Your task to perform on an android device: find snoozed emails in the gmail app Image 0: 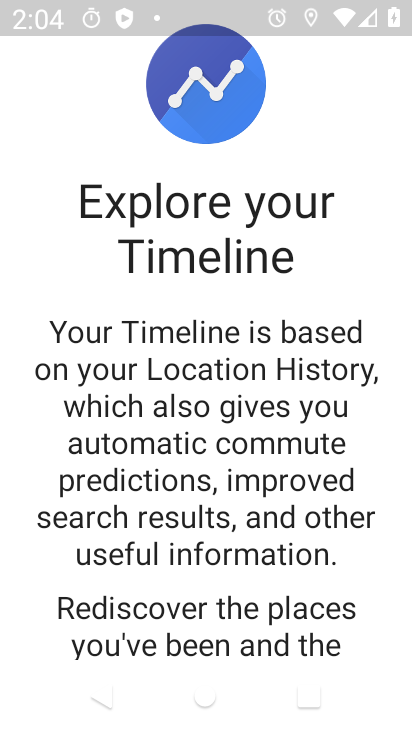
Step 0: press home button
Your task to perform on an android device: find snoozed emails in the gmail app Image 1: 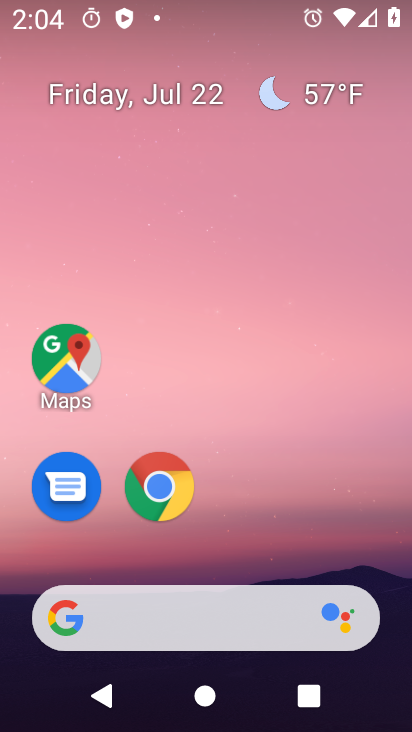
Step 1: drag from (376, 498) to (360, 121)
Your task to perform on an android device: find snoozed emails in the gmail app Image 2: 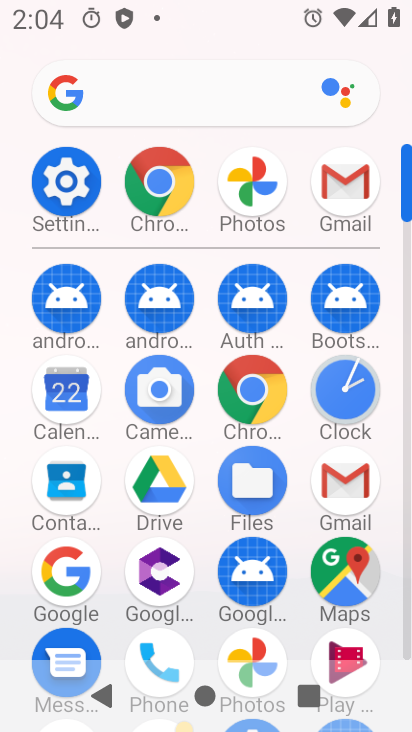
Step 2: click (341, 487)
Your task to perform on an android device: find snoozed emails in the gmail app Image 3: 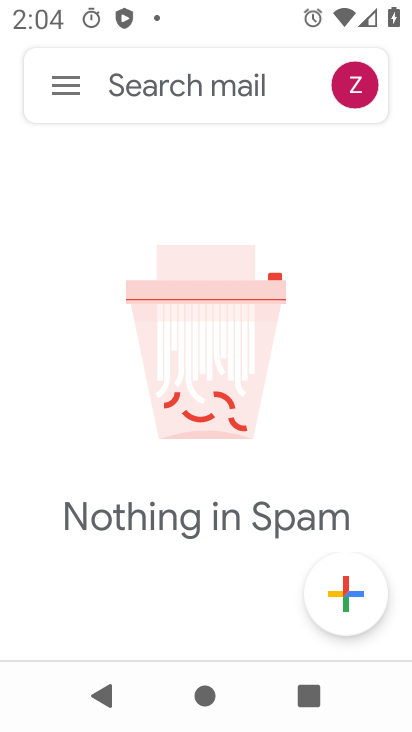
Step 3: click (70, 90)
Your task to perform on an android device: find snoozed emails in the gmail app Image 4: 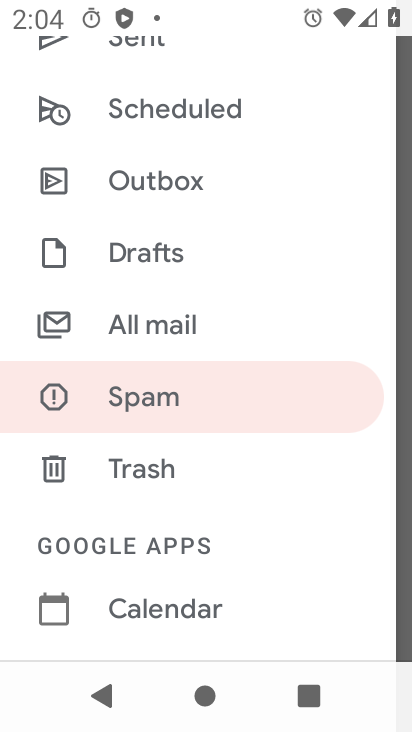
Step 4: drag from (301, 227) to (301, 309)
Your task to perform on an android device: find snoozed emails in the gmail app Image 5: 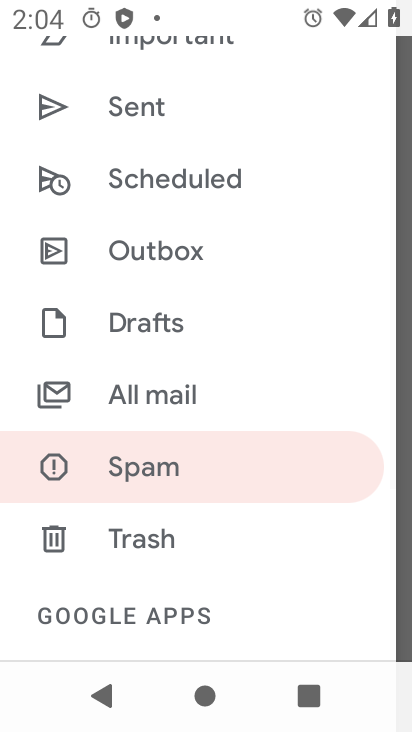
Step 5: drag from (312, 199) to (312, 320)
Your task to perform on an android device: find snoozed emails in the gmail app Image 6: 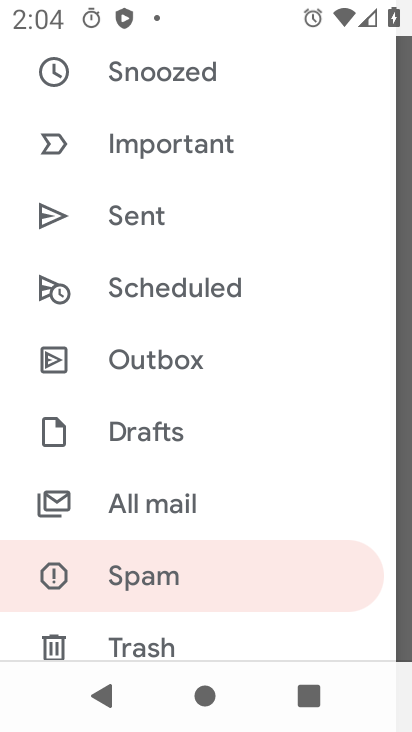
Step 6: drag from (307, 213) to (308, 370)
Your task to perform on an android device: find snoozed emails in the gmail app Image 7: 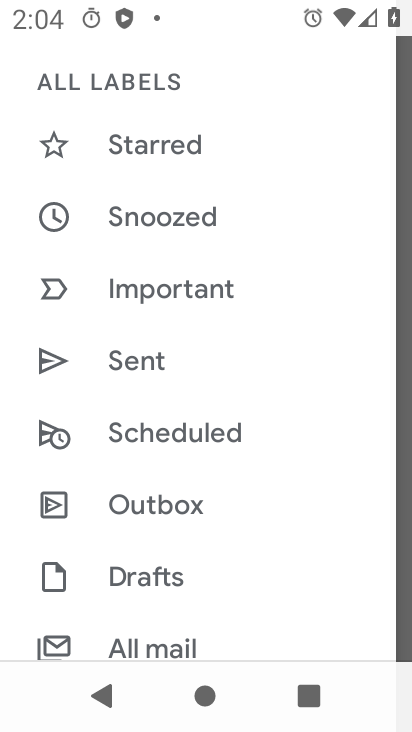
Step 7: drag from (322, 189) to (308, 339)
Your task to perform on an android device: find snoozed emails in the gmail app Image 8: 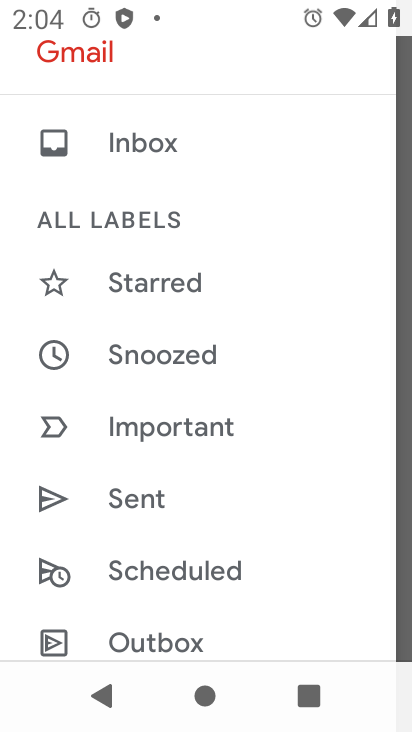
Step 8: click (273, 368)
Your task to perform on an android device: find snoozed emails in the gmail app Image 9: 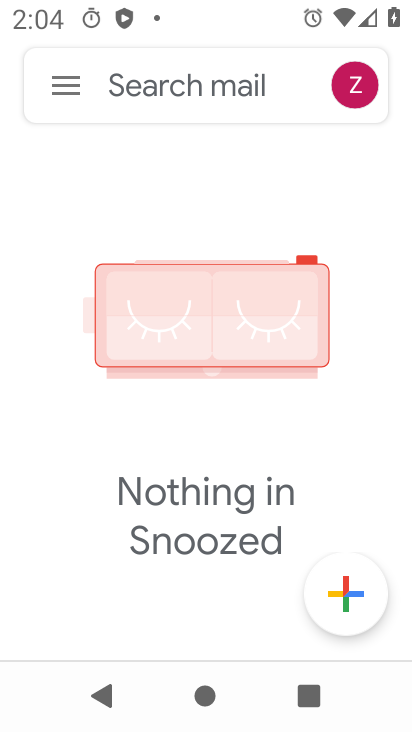
Step 9: task complete